Your task to perform on an android device: Add "bose soundsport free" to the cart on target, then select checkout. Image 0: 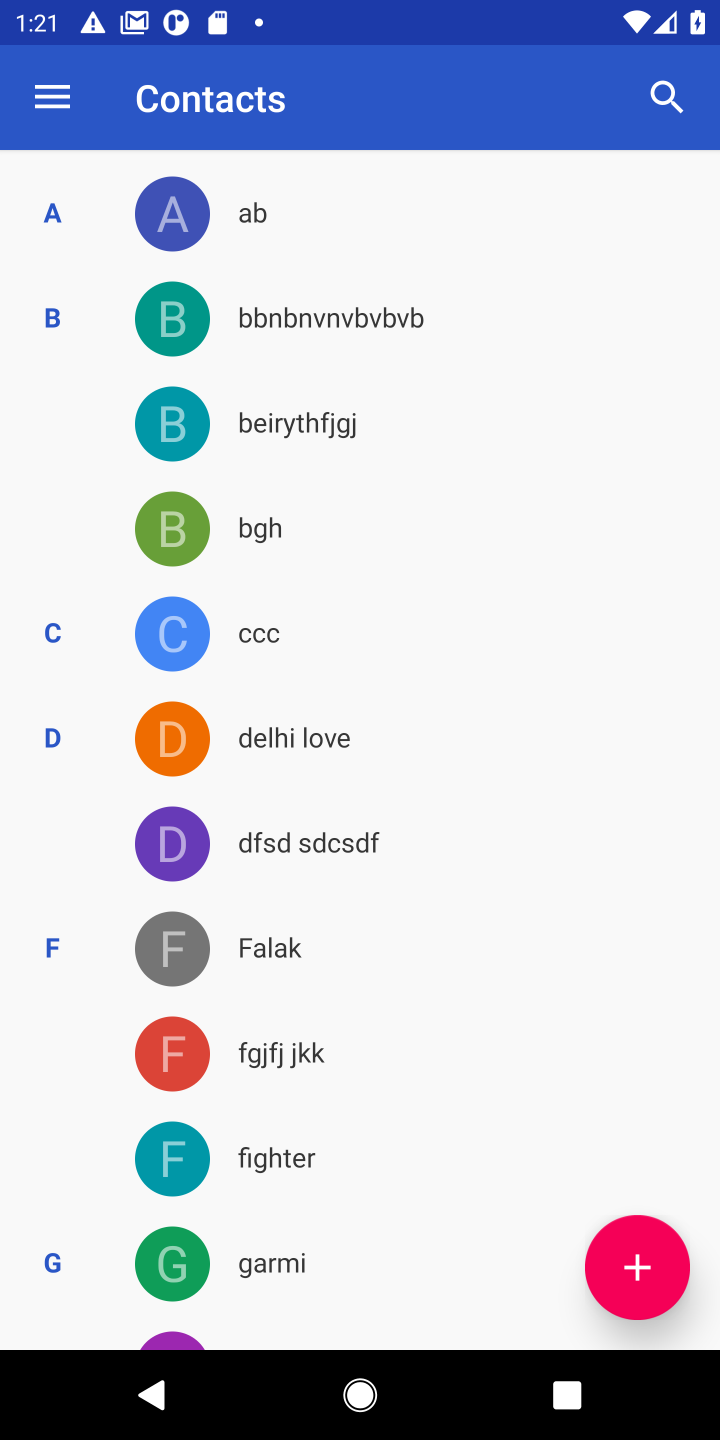
Step 0: press home button
Your task to perform on an android device: Add "bose soundsport free" to the cart on target, then select checkout. Image 1: 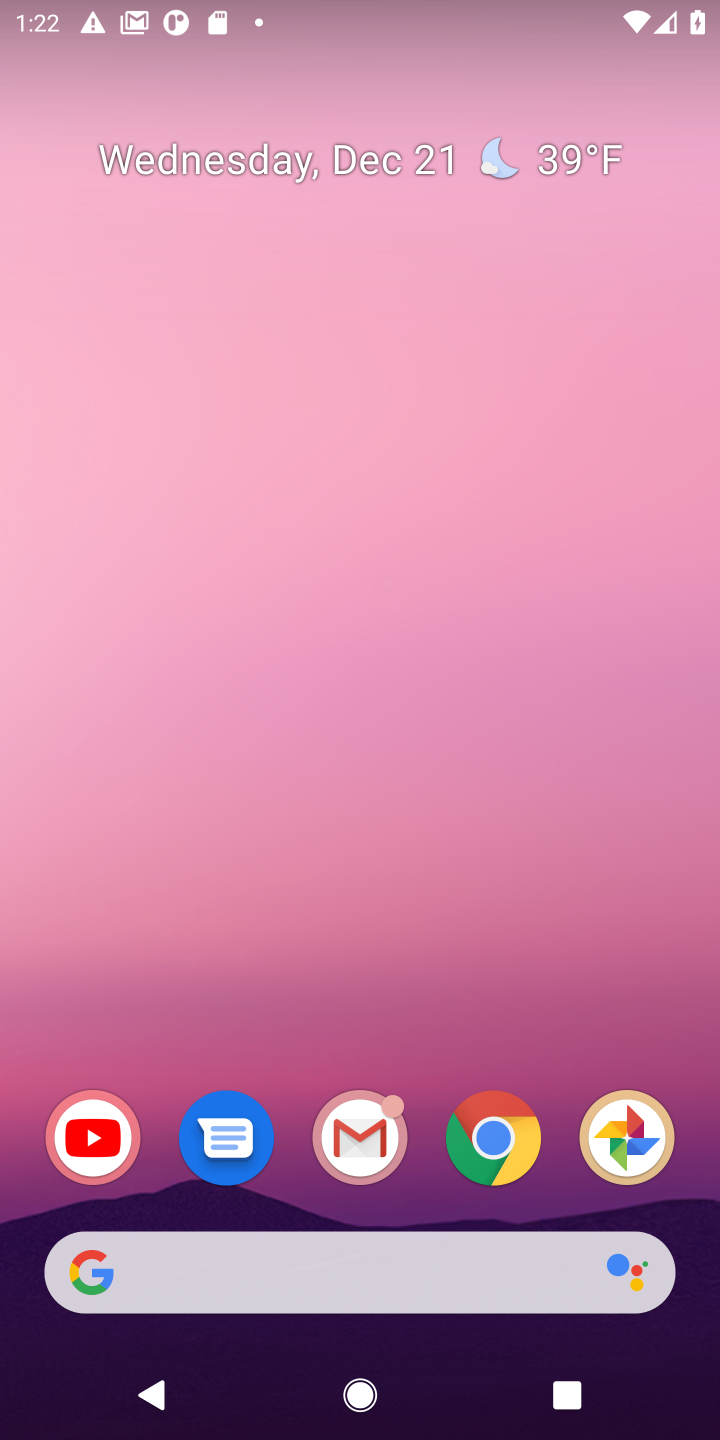
Step 1: click (517, 1141)
Your task to perform on an android device: Add "bose soundsport free" to the cart on target, then select checkout. Image 2: 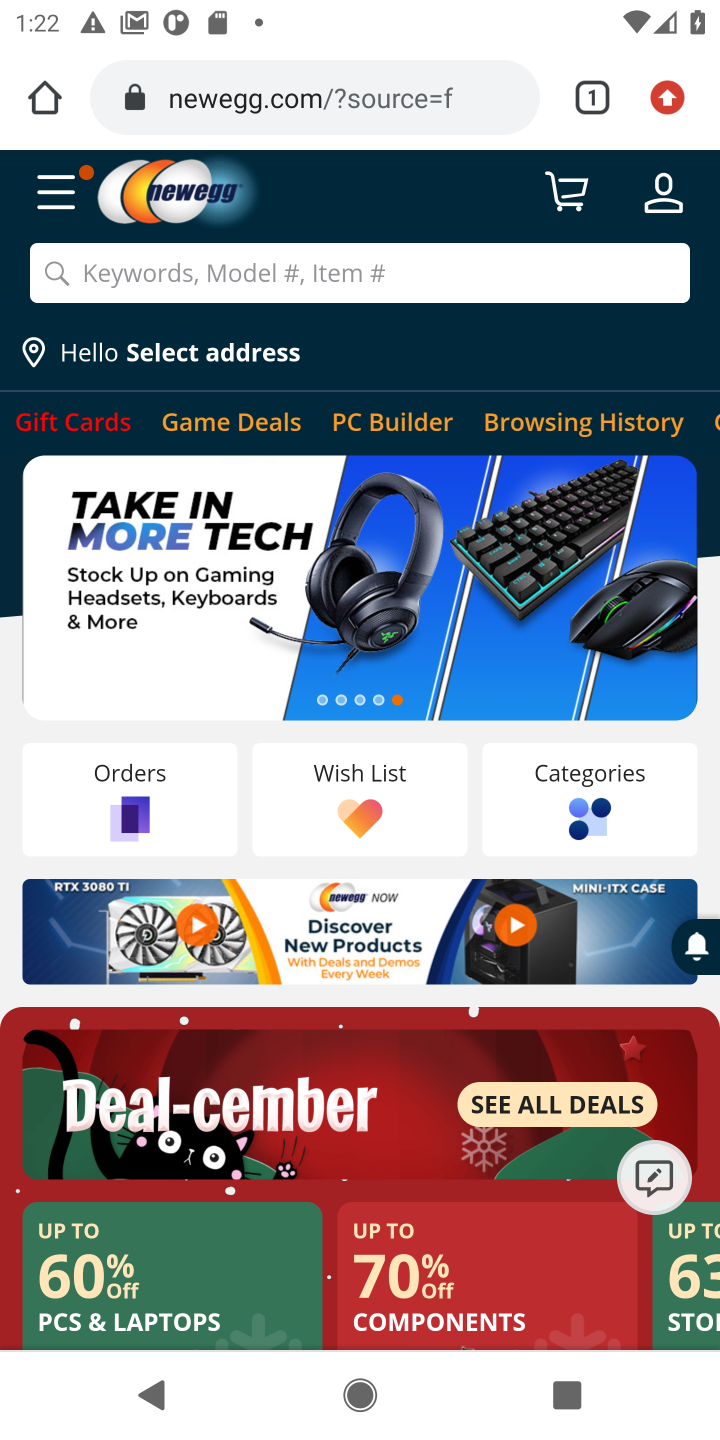
Step 2: task complete